Your task to perform on an android device: Search for sushi restaurants on Maps Image 0: 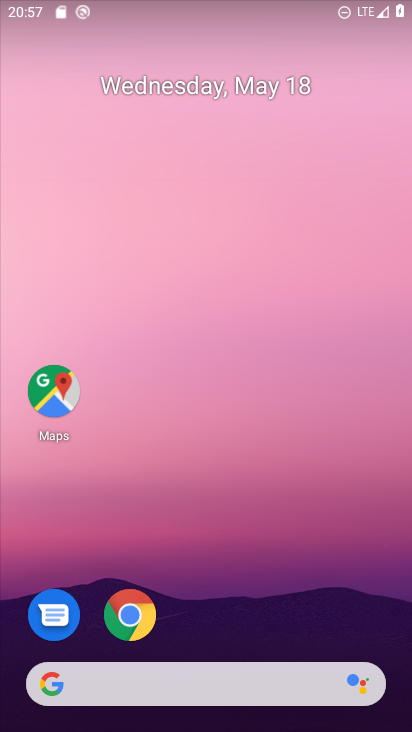
Step 0: click (64, 396)
Your task to perform on an android device: Search for sushi restaurants on Maps Image 1: 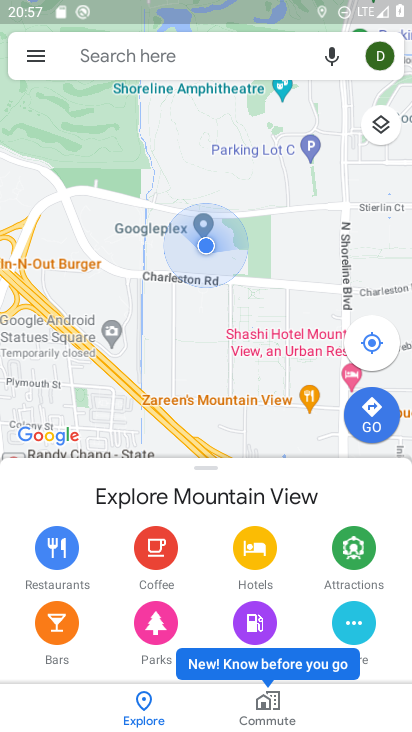
Step 1: click (153, 59)
Your task to perform on an android device: Search for sushi restaurants on Maps Image 2: 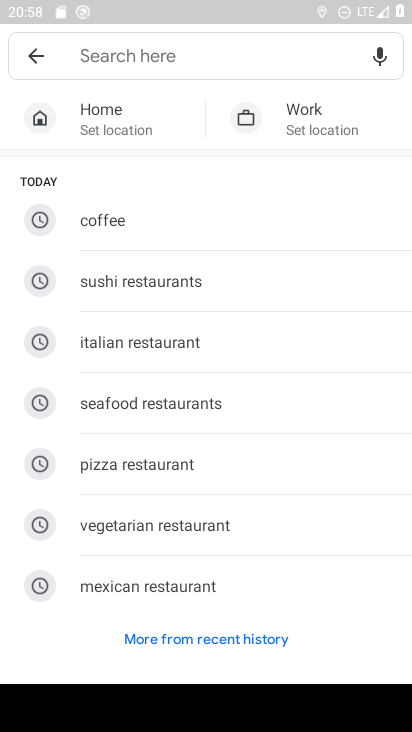
Step 2: click (146, 284)
Your task to perform on an android device: Search for sushi restaurants on Maps Image 3: 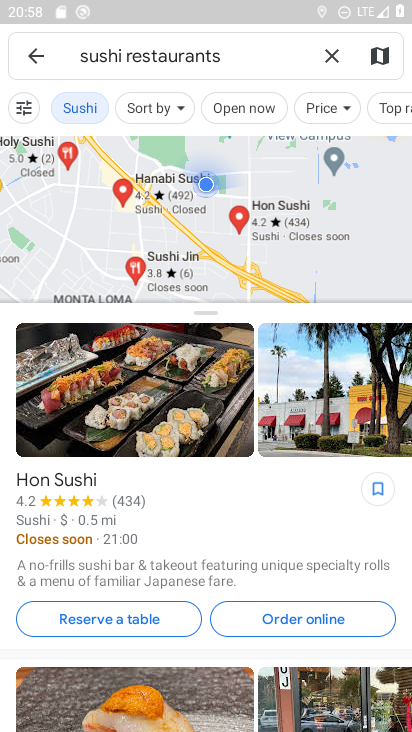
Step 3: task complete